Your task to perform on an android device: Show me popular games on the Play Store Image 0: 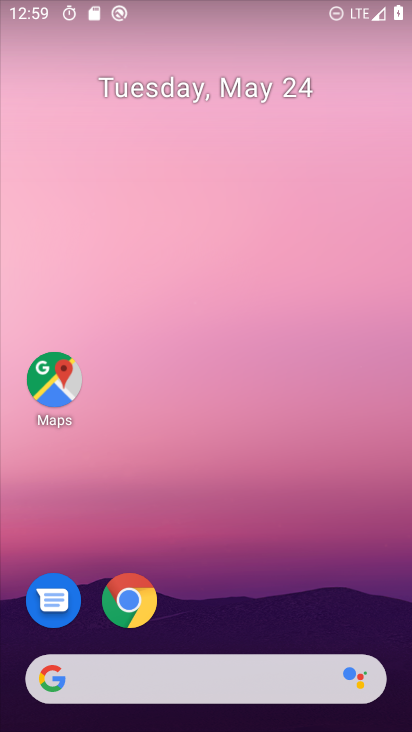
Step 0: drag from (301, 597) to (279, 177)
Your task to perform on an android device: Show me popular games on the Play Store Image 1: 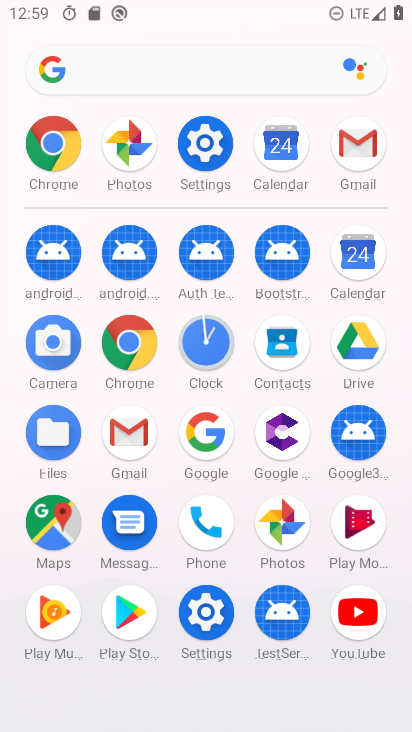
Step 1: click (120, 619)
Your task to perform on an android device: Show me popular games on the Play Store Image 2: 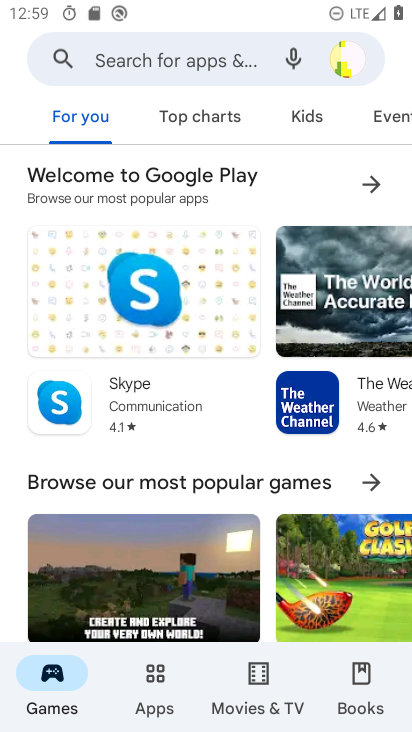
Step 2: task complete